Your task to perform on an android device: Search for top rated burger restaurants on Google Maps Image 0: 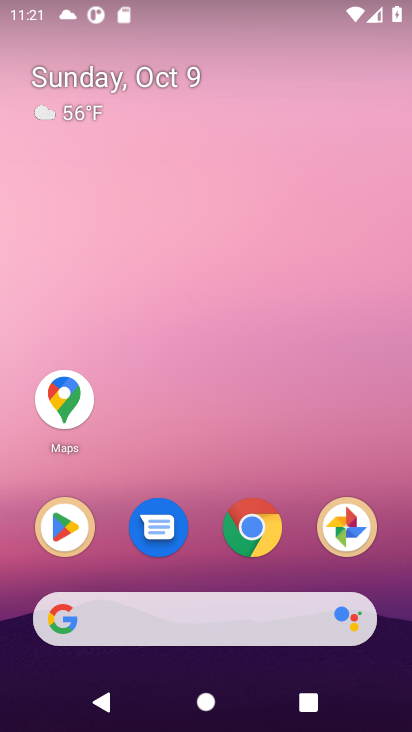
Step 0: click (68, 416)
Your task to perform on an android device: Search for top rated burger restaurants on Google Maps Image 1: 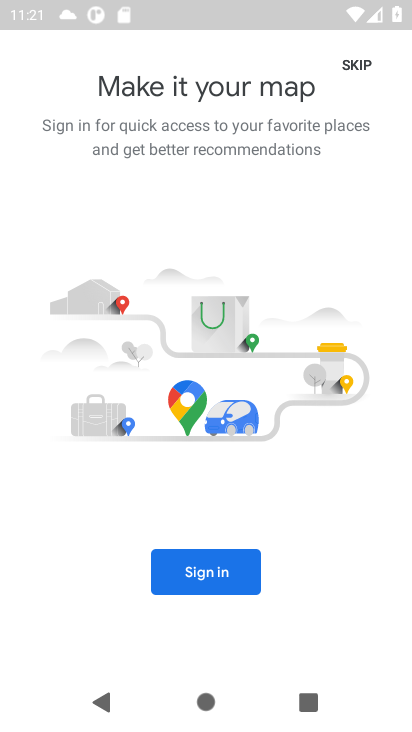
Step 1: click (354, 70)
Your task to perform on an android device: Search for top rated burger restaurants on Google Maps Image 2: 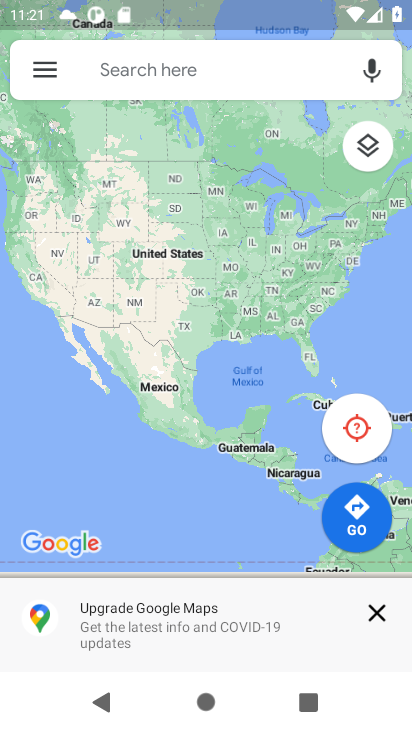
Step 2: click (148, 76)
Your task to perform on an android device: Search for top rated burger restaurants on Google Maps Image 3: 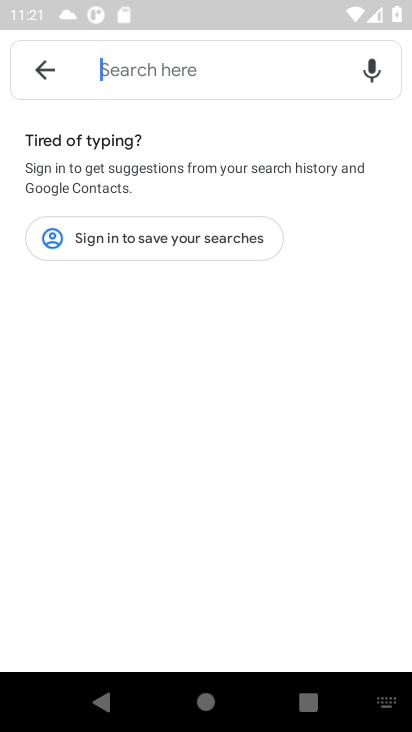
Step 3: type "top rated burger restaurants "
Your task to perform on an android device: Search for top rated burger restaurants on Google Maps Image 4: 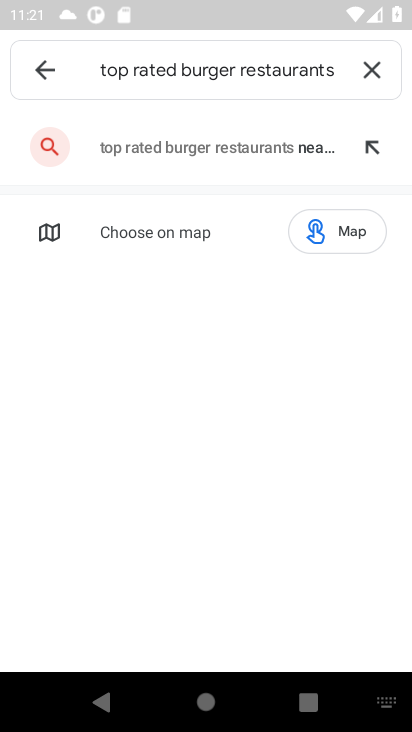
Step 4: click (171, 146)
Your task to perform on an android device: Search for top rated burger restaurants on Google Maps Image 5: 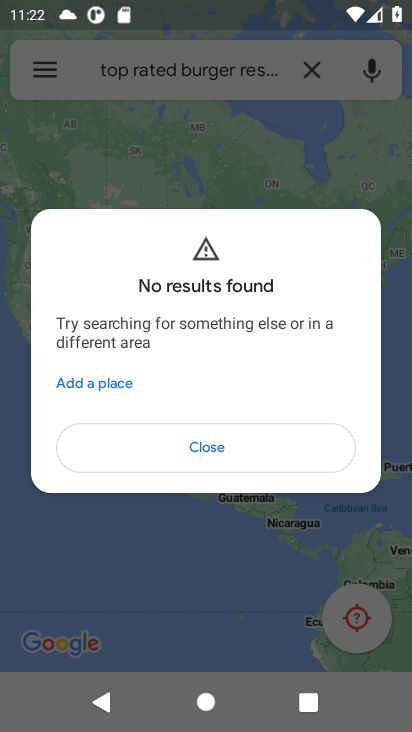
Step 5: click (197, 444)
Your task to perform on an android device: Search for top rated burger restaurants on Google Maps Image 6: 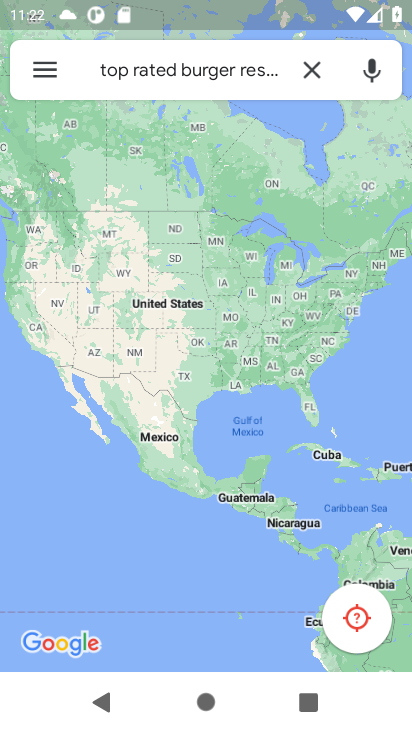
Step 6: task complete